Your task to perform on an android device: toggle improve location accuracy Image 0: 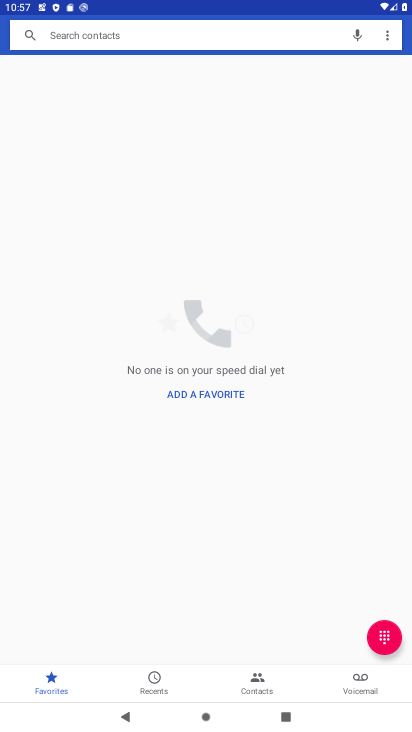
Step 0: press home button
Your task to perform on an android device: toggle improve location accuracy Image 1: 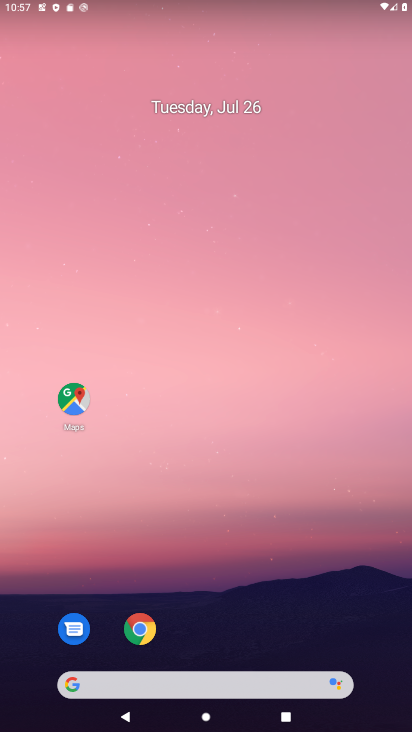
Step 1: click (192, 631)
Your task to perform on an android device: toggle improve location accuracy Image 2: 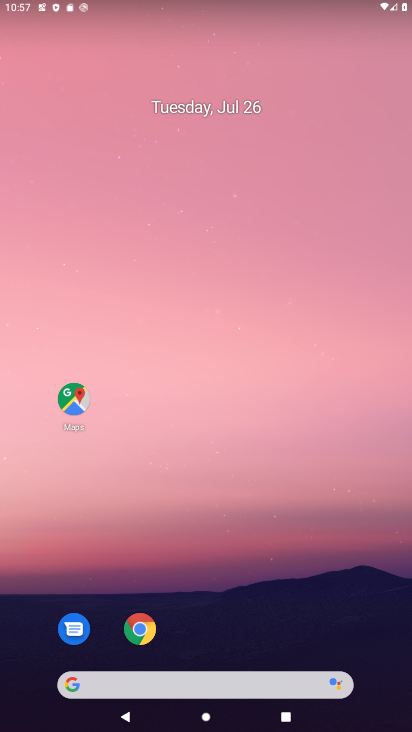
Step 2: drag from (194, 646) to (231, 193)
Your task to perform on an android device: toggle improve location accuracy Image 3: 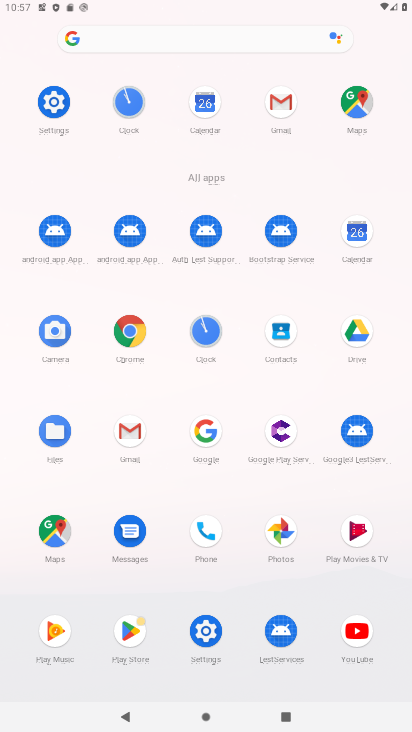
Step 3: click (202, 652)
Your task to perform on an android device: toggle improve location accuracy Image 4: 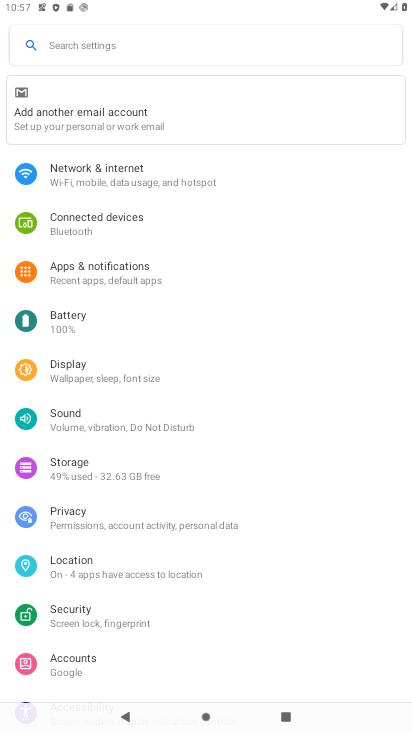
Step 4: click (105, 576)
Your task to perform on an android device: toggle improve location accuracy Image 5: 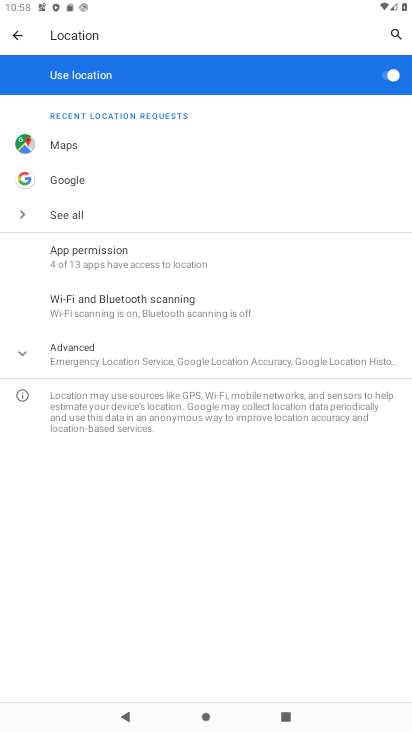
Step 5: click (65, 358)
Your task to perform on an android device: toggle improve location accuracy Image 6: 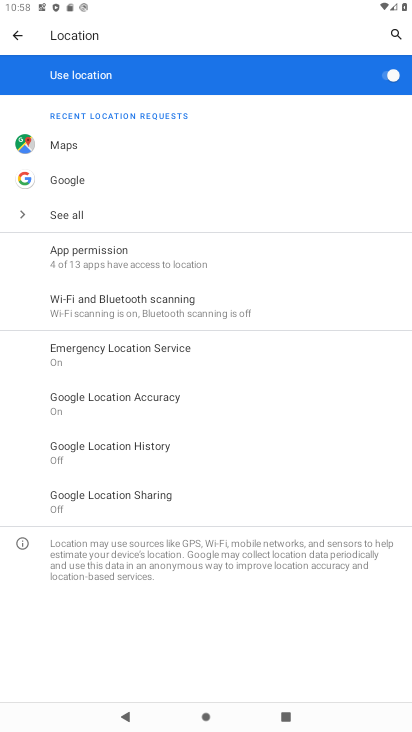
Step 6: click (139, 393)
Your task to perform on an android device: toggle improve location accuracy Image 7: 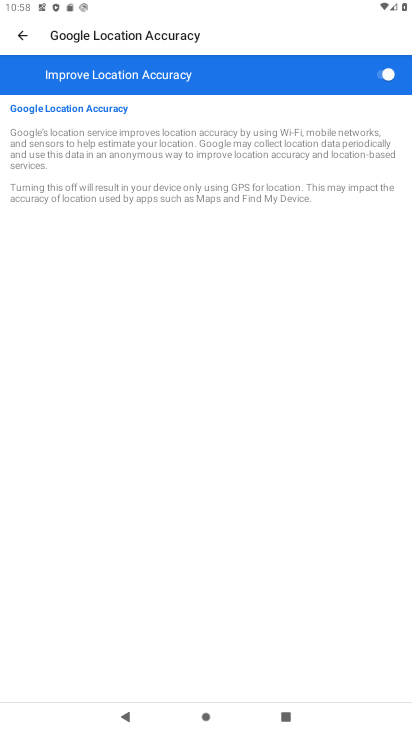
Step 7: click (378, 80)
Your task to perform on an android device: toggle improve location accuracy Image 8: 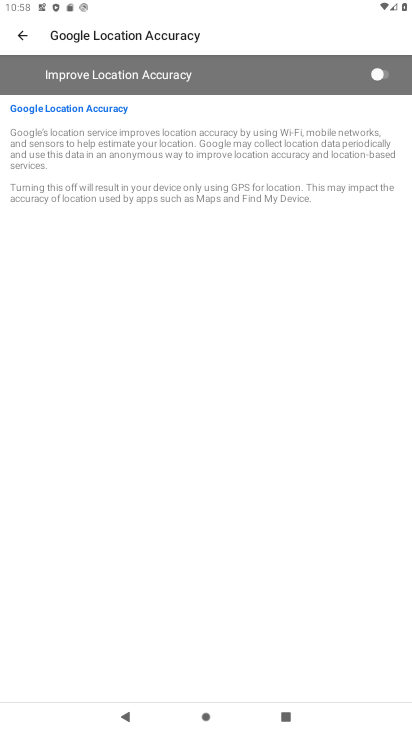
Step 8: task complete